Your task to perform on an android device: Open maps Image 0: 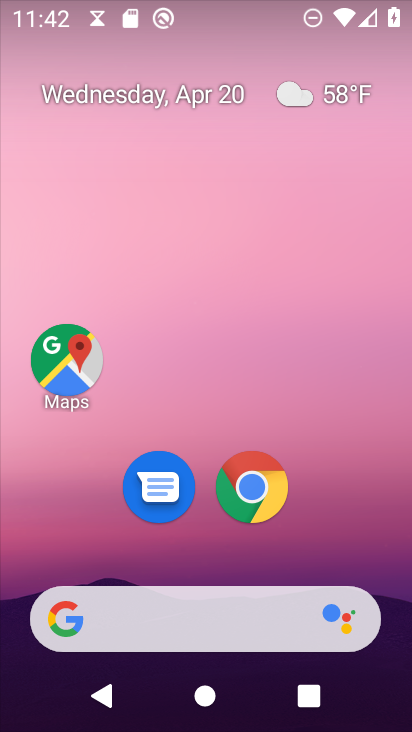
Step 0: drag from (327, 512) to (270, 61)
Your task to perform on an android device: Open maps Image 1: 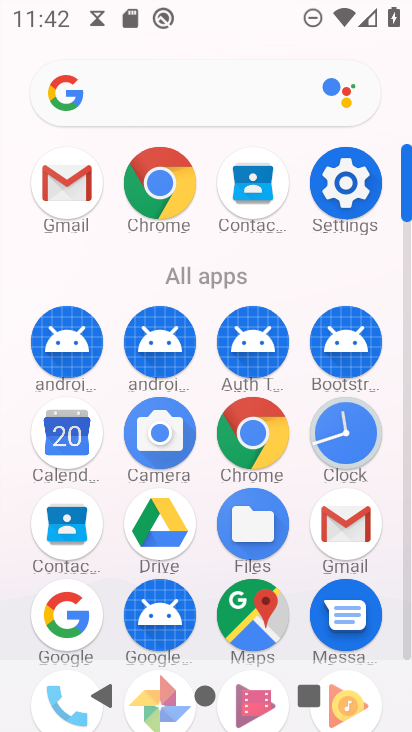
Step 1: click (251, 612)
Your task to perform on an android device: Open maps Image 2: 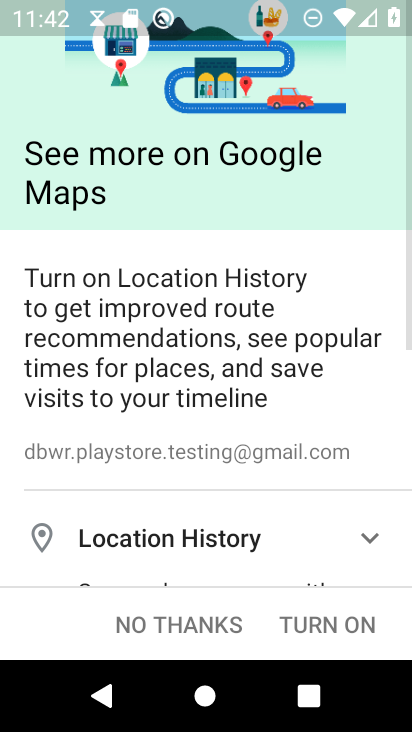
Step 2: click (321, 616)
Your task to perform on an android device: Open maps Image 3: 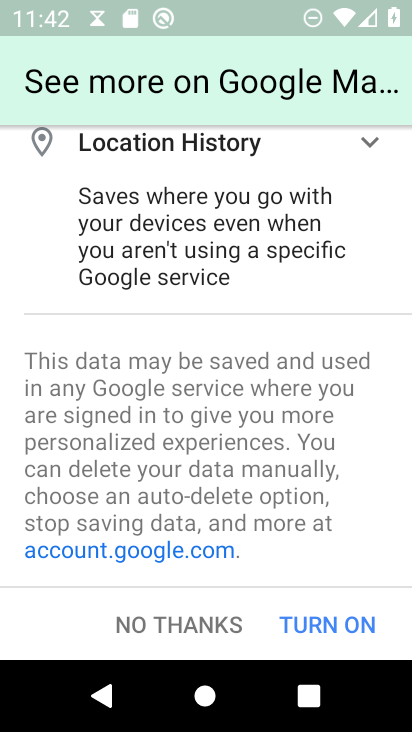
Step 3: click (321, 616)
Your task to perform on an android device: Open maps Image 4: 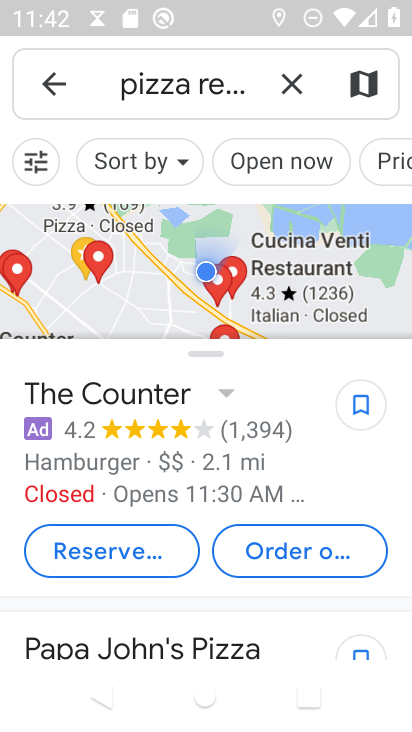
Step 4: click (55, 73)
Your task to perform on an android device: Open maps Image 5: 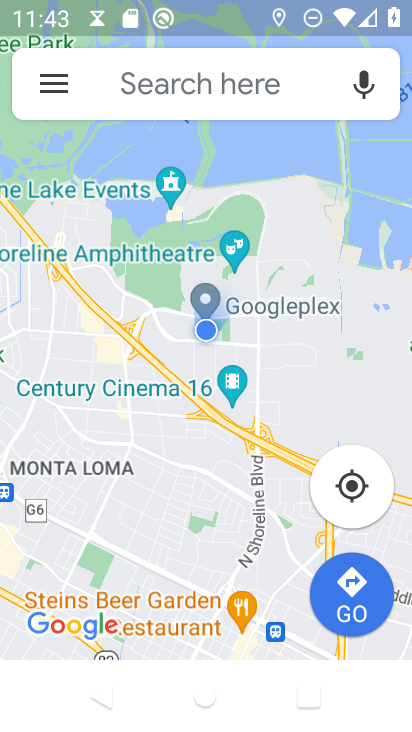
Step 5: task complete